Your task to perform on an android device: Go to display settings Image 0: 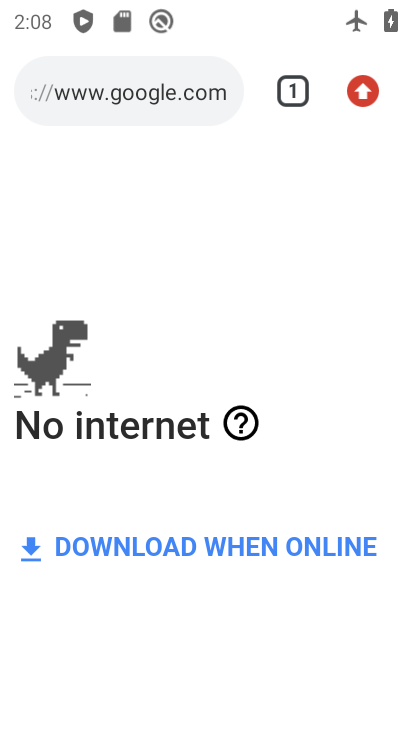
Step 0: press home button
Your task to perform on an android device: Go to display settings Image 1: 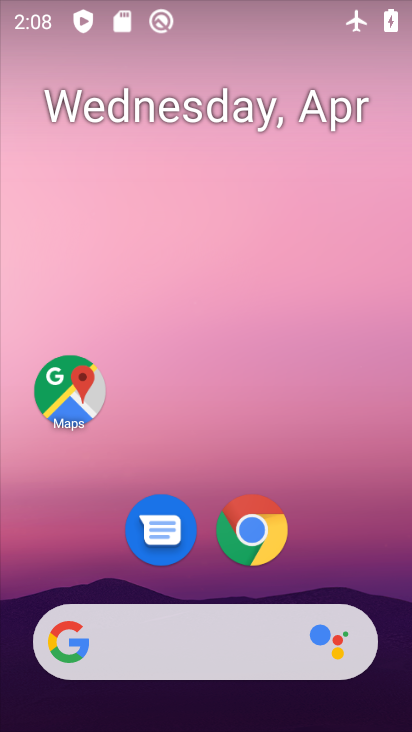
Step 1: drag from (332, 544) to (253, 190)
Your task to perform on an android device: Go to display settings Image 2: 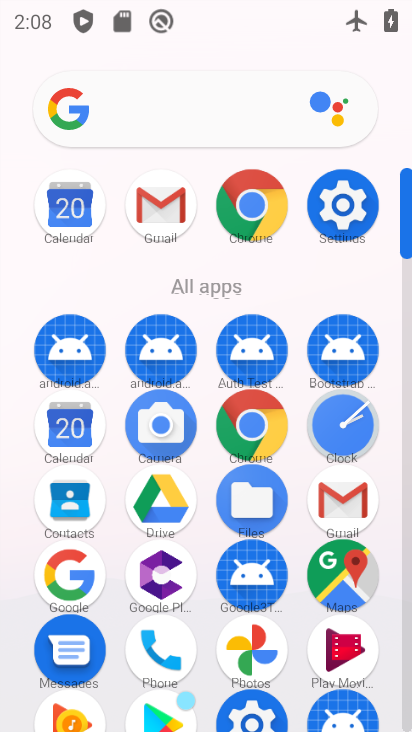
Step 2: click (336, 197)
Your task to perform on an android device: Go to display settings Image 3: 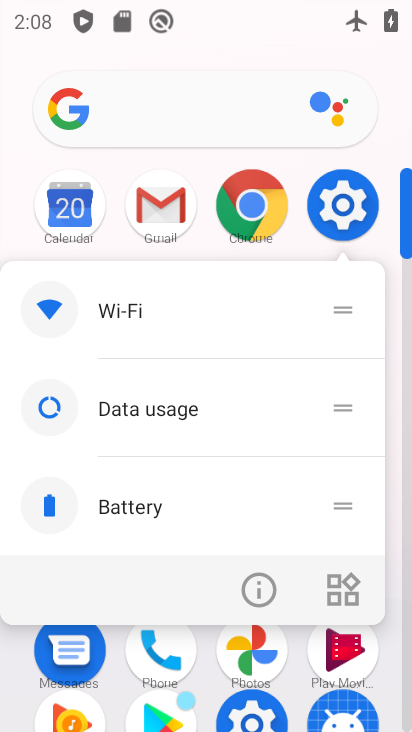
Step 3: click (343, 207)
Your task to perform on an android device: Go to display settings Image 4: 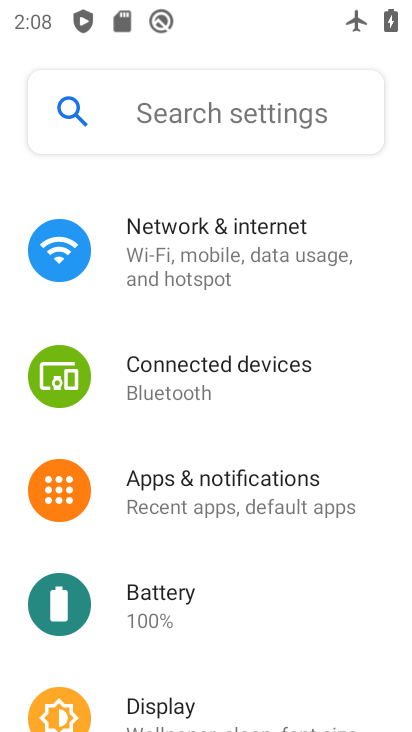
Step 4: drag from (266, 571) to (313, 342)
Your task to perform on an android device: Go to display settings Image 5: 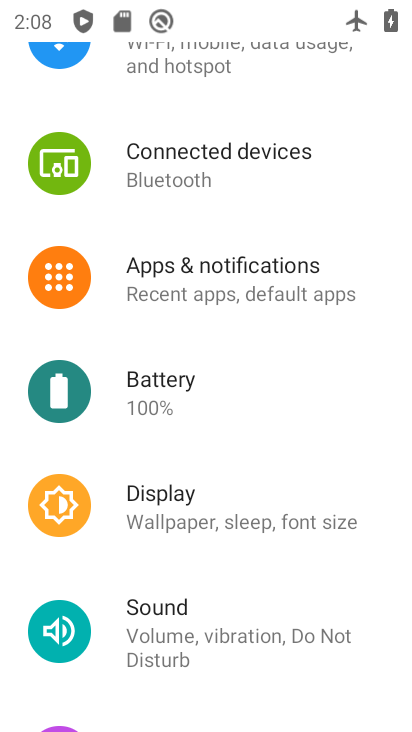
Step 5: click (226, 509)
Your task to perform on an android device: Go to display settings Image 6: 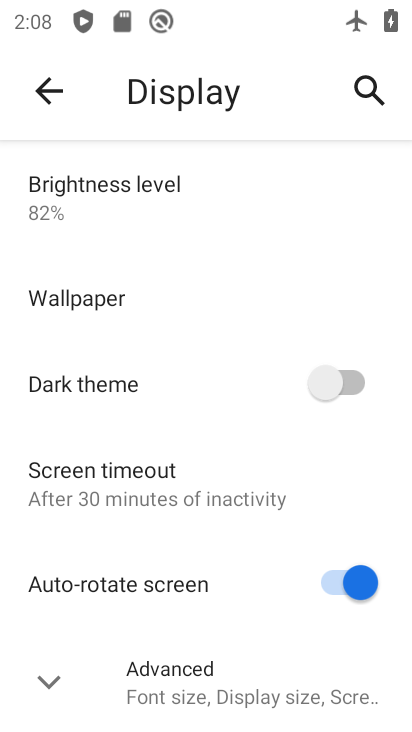
Step 6: task complete